Your task to perform on an android device: clear all cookies in the chrome app Image 0: 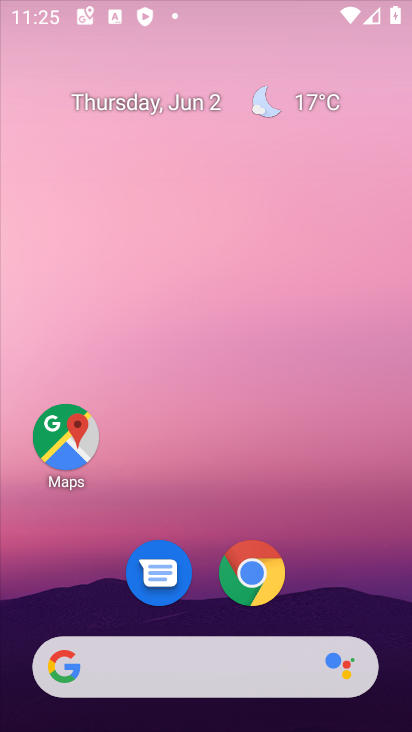
Step 0: drag from (387, 560) to (411, 86)
Your task to perform on an android device: clear all cookies in the chrome app Image 1: 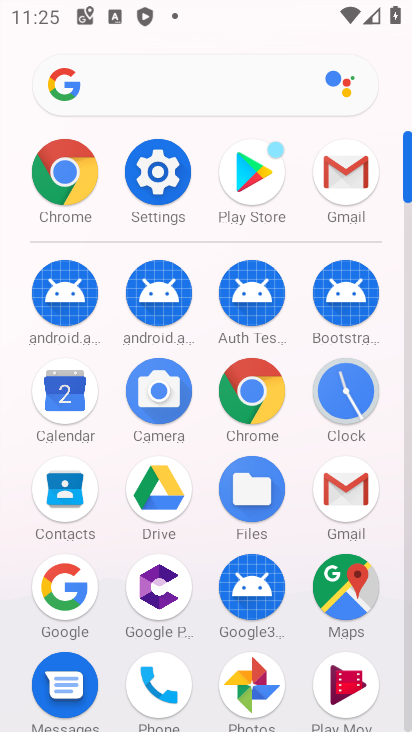
Step 1: click (81, 173)
Your task to perform on an android device: clear all cookies in the chrome app Image 2: 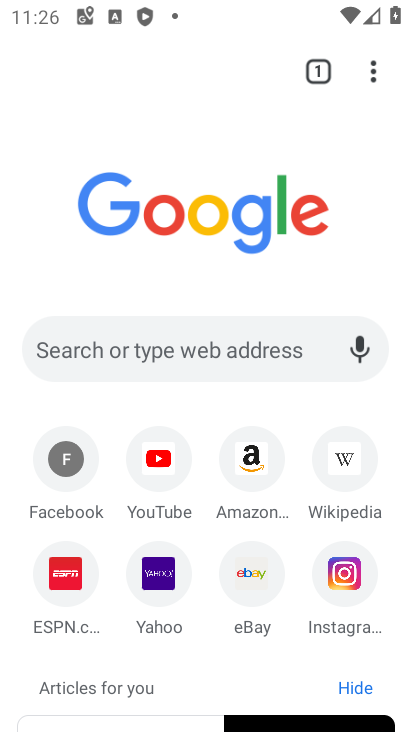
Step 2: task complete